Your task to perform on an android device: delete the emails in spam in the gmail app Image 0: 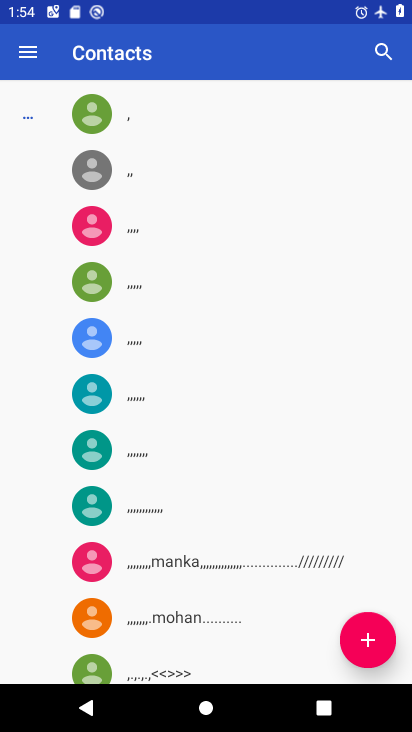
Step 0: press home button
Your task to perform on an android device: delete the emails in spam in the gmail app Image 1: 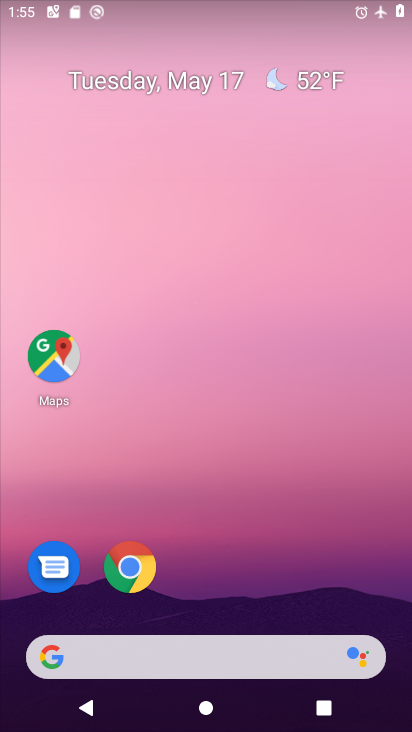
Step 1: click (228, 118)
Your task to perform on an android device: delete the emails in spam in the gmail app Image 2: 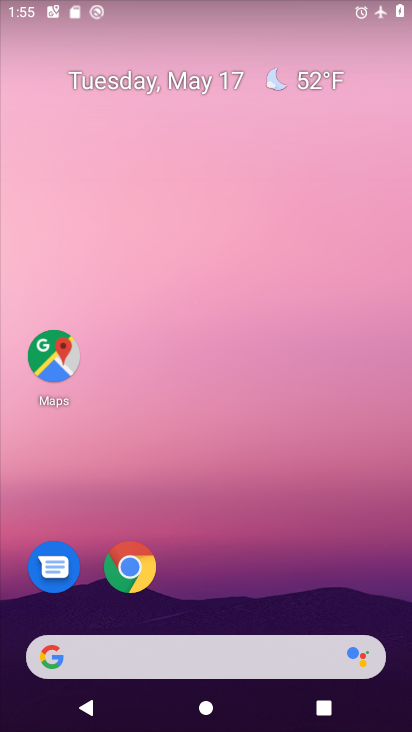
Step 2: drag from (199, 579) to (314, 122)
Your task to perform on an android device: delete the emails in spam in the gmail app Image 3: 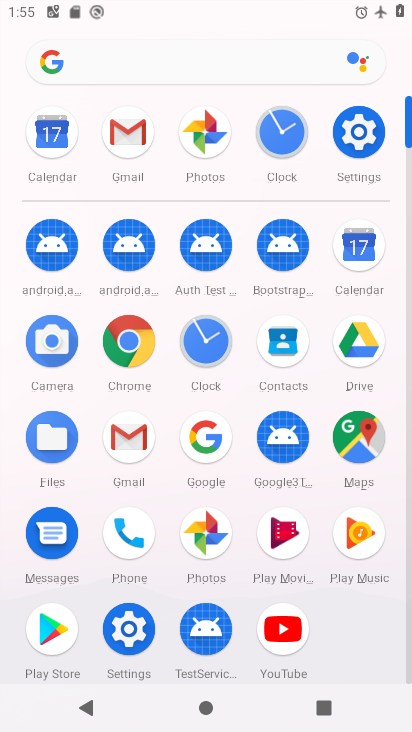
Step 3: click (125, 141)
Your task to perform on an android device: delete the emails in spam in the gmail app Image 4: 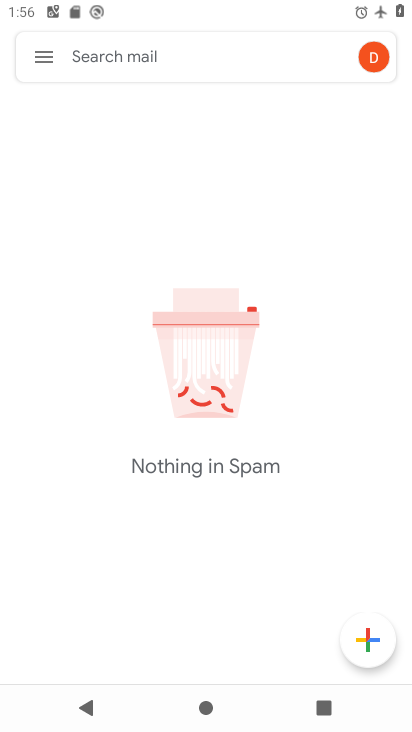
Step 4: task complete